Your task to perform on an android device: check storage Image 0: 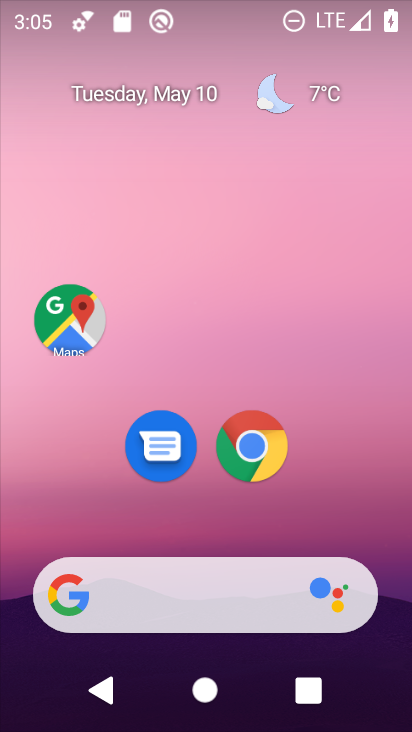
Step 0: drag from (308, 521) to (254, 69)
Your task to perform on an android device: check storage Image 1: 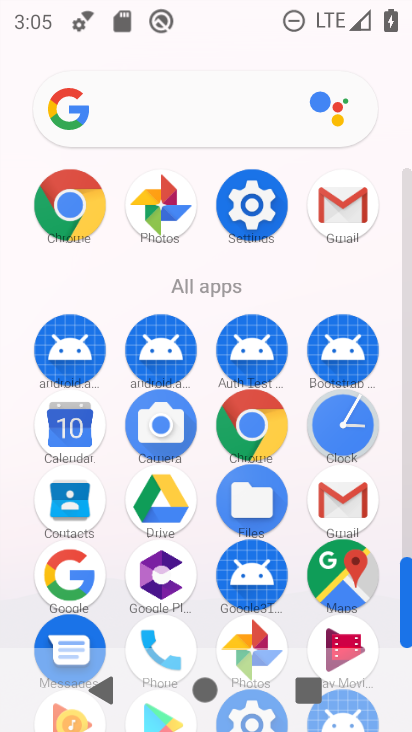
Step 1: click (260, 210)
Your task to perform on an android device: check storage Image 2: 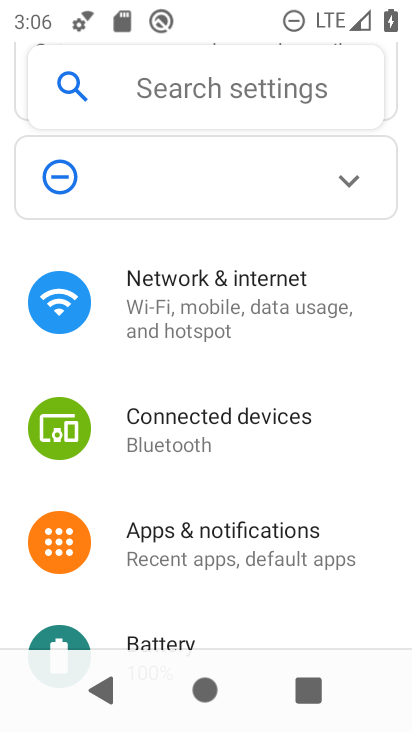
Step 2: drag from (214, 474) to (232, 214)
Your task to perform on an android device: check storage Image 3: 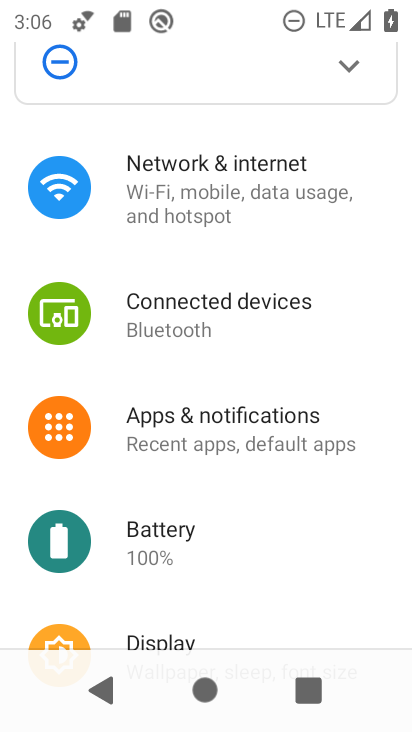
Step 3: drag from (211, 516) to (245, 331)
Your task to perform on an android device: check storage Image 4: 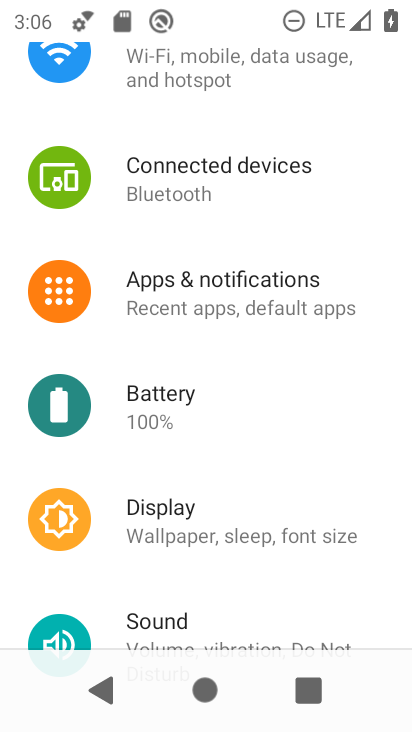
Step 4: drag from (209, 476) to (236, 234)
Your task to perform on an android device: check storage Image 5: 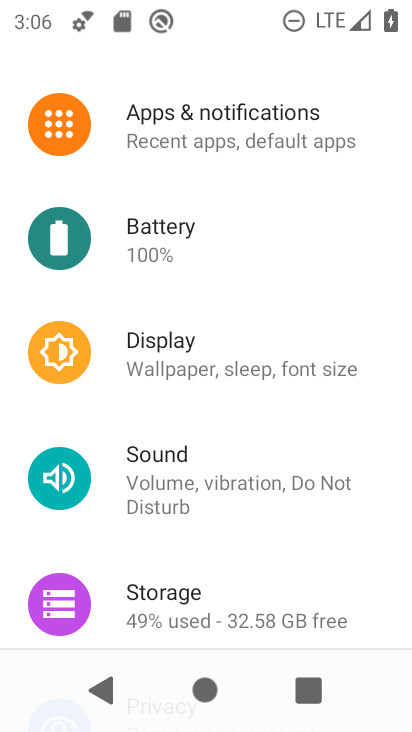
Step 5: click (191, 599)
Your task to perform on an android device: check storage Image 6: 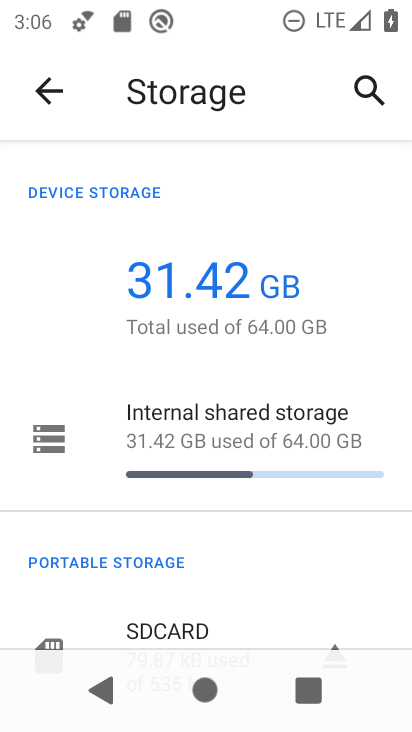
Step 6: task complete